Your task to perform on an android device: open app "VLC for Android" (install if not already installed), go to login, and select forgot password Image 0: 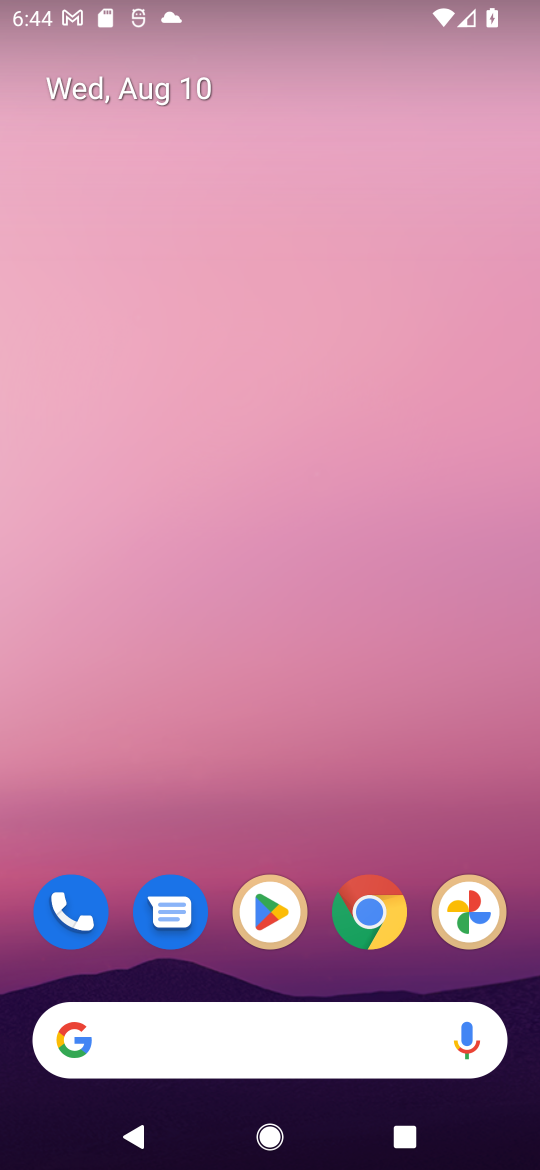
Step 0: drag from (525, 794) to (321, 18)
Your task to perform on an android device: open app "VLC for Android" (install if not already installed), go to login, and select forgot password Image 1: 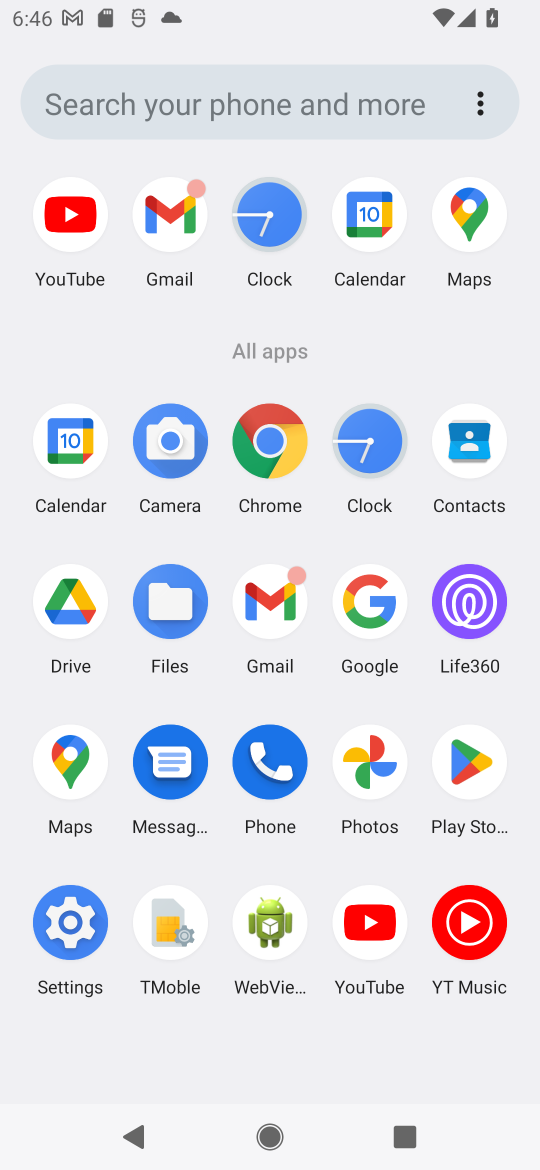
Step 1: click (469, 787)
Your task to perform on an android device: open app "VLC for Android" (install if not already installed), go to login, and select forgot password Image 2: 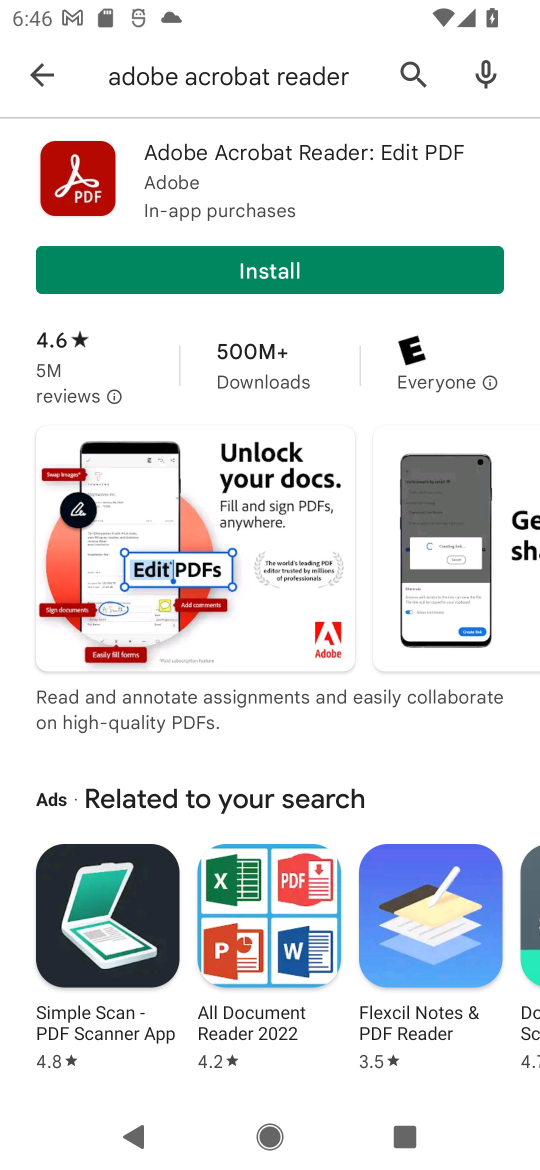
Step 2: press back button
Your task to perform on an android device: open app "VLC for Android" (install if not already installed), go to login, and select forgot password Image 3: 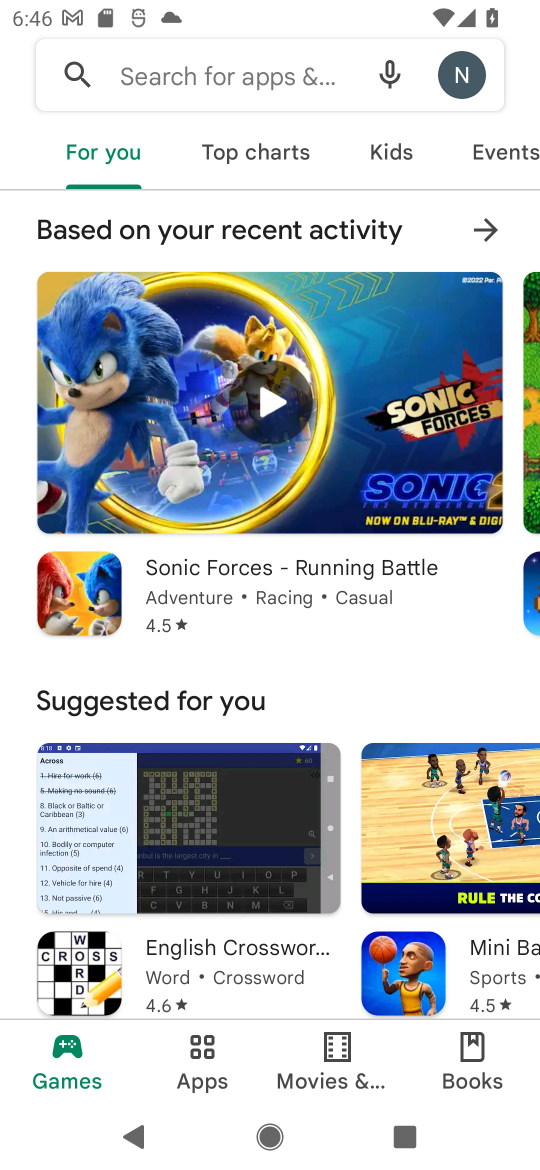
Step 3: click (156, 80)
Your task to perform on an android device: open app "VLC for Android" (install if not already installed), go to login, and select forgot password Image 4: 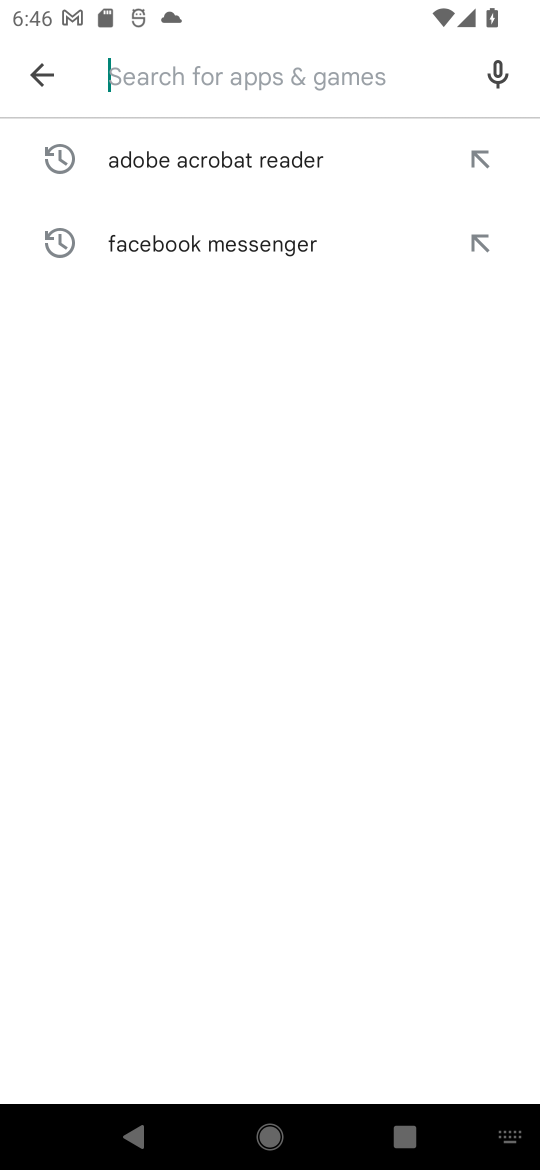
Step 4: type "VLC for Android"
Your task to perform on an android device: open app "VLC for Android" (install if not already installed), go to login, and select forgot password Image 5: 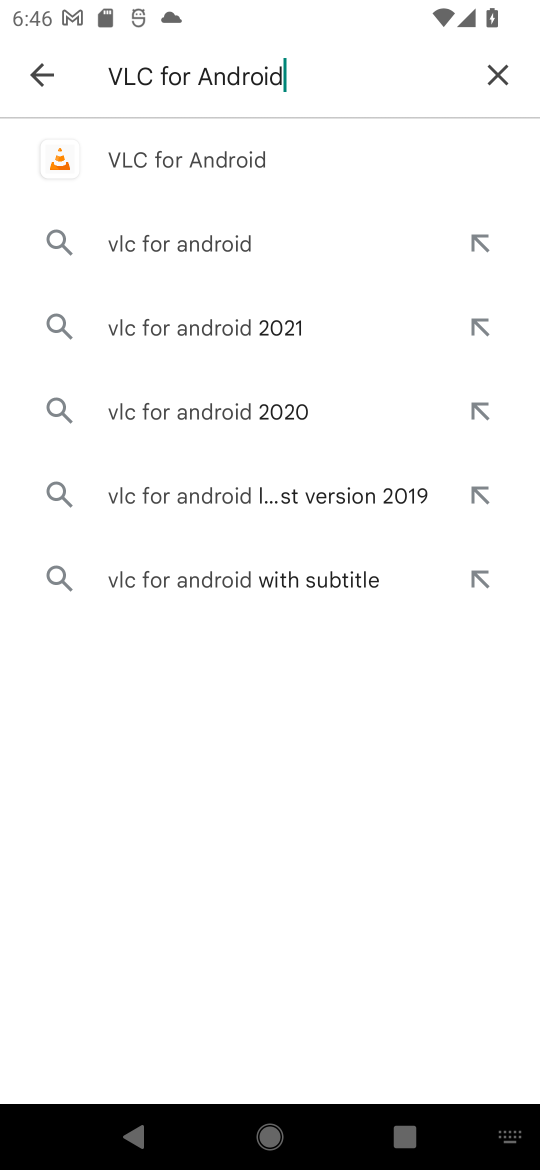
Step 5: click (226, 138)
Your task to perform on an android device: open app "VLC for Android" (install if not already installed), go to login, and select forgot password Image 6: 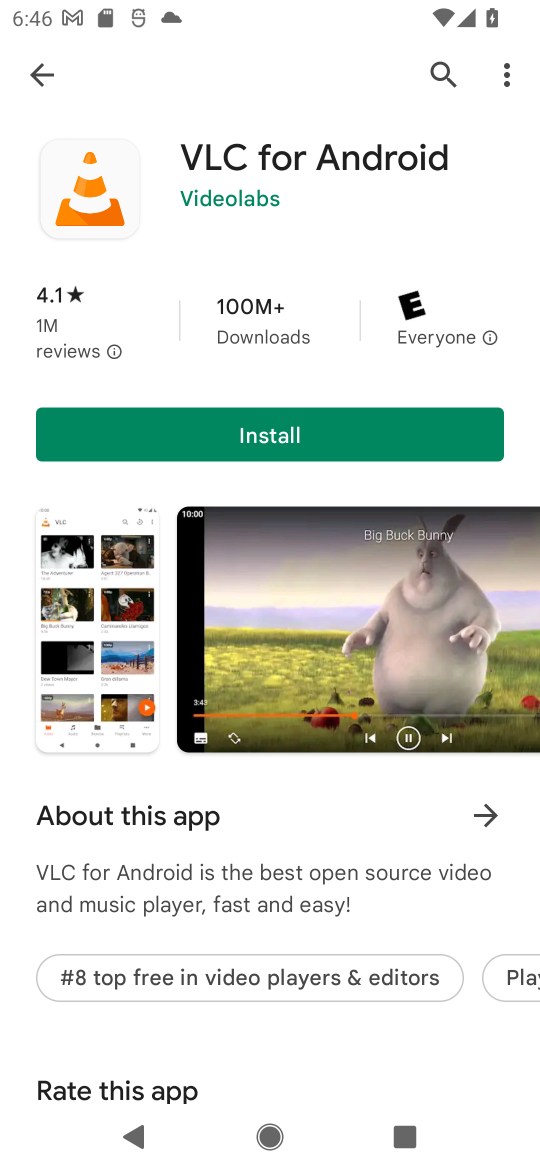
Step 6: task complete